Your task to perform on an android device: open a bookmark in the chrome app Image 0: 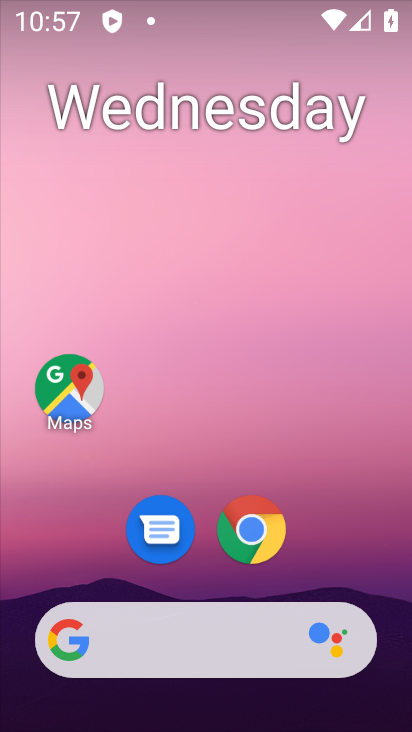
Step 0: drag from (373, 570) to (411, 296)
Your task to perform on an android device: open a bookmark in the chrome app Image 1: 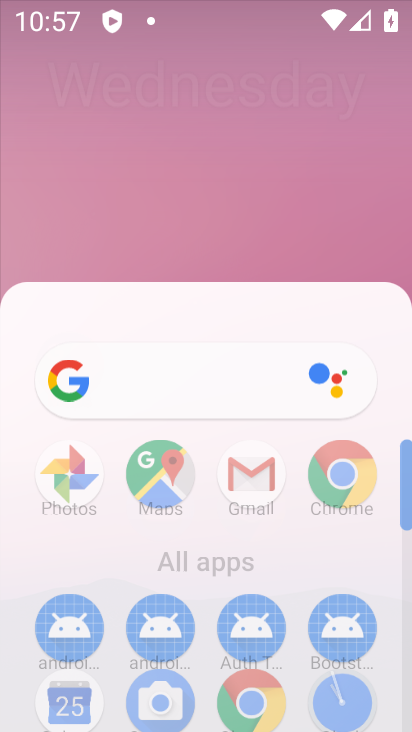
Step 1: drag from (386, 281) to (378, 74)
Your task to perform on an android device: open a bookmark in the chrome app Image 2: 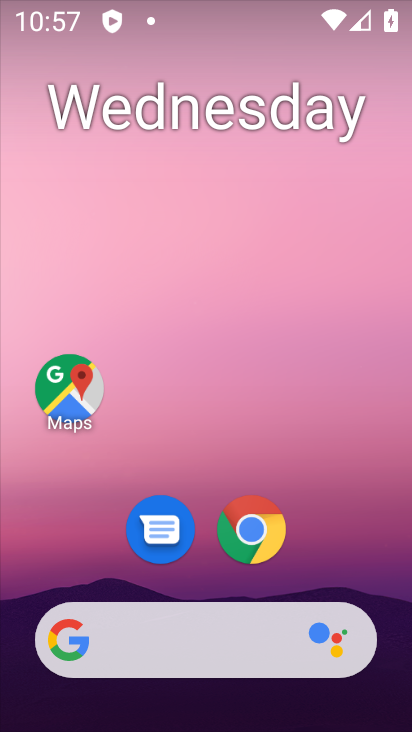
Step 2: drag from (342, 511) to (410, 3)
Your task to perform on an android device: open a bookmark in the chrome app Image 3: 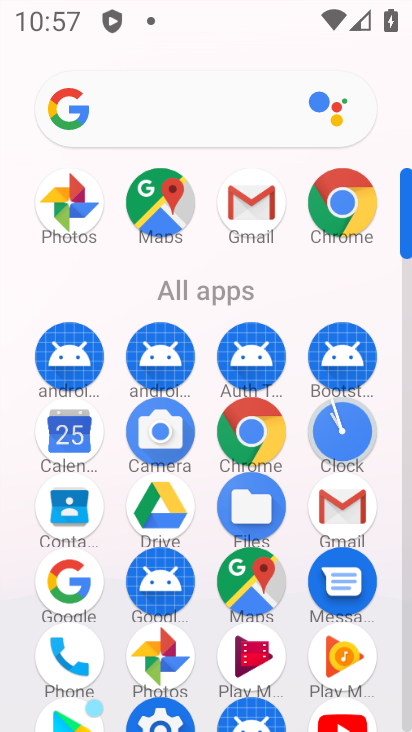
Step 3: click (345, 223)
Your task to perform on an android device: open a bookmark in the chrome app Image 4: 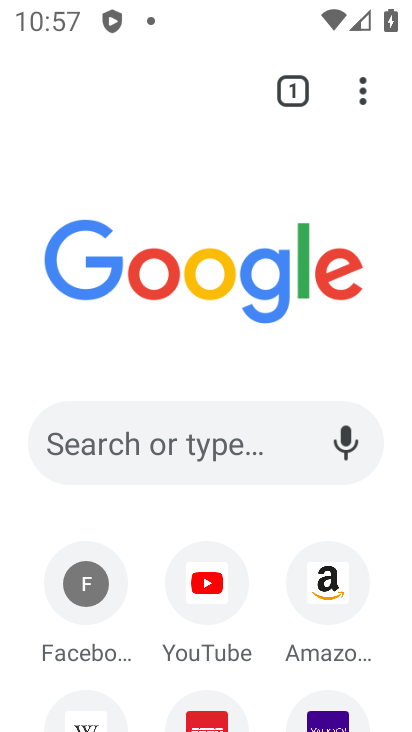
Step 4: click (361, 101)
Your task to perform on an android device: open a bookmark in the chrome app Image 5: 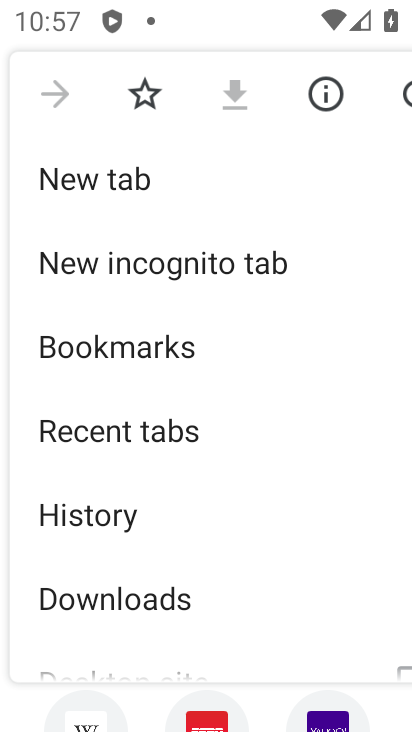
Step 5: drag from (294, 498) to (307, 408)
Your task to perform on an android device: open a bookmark in the chrome app Image 6: 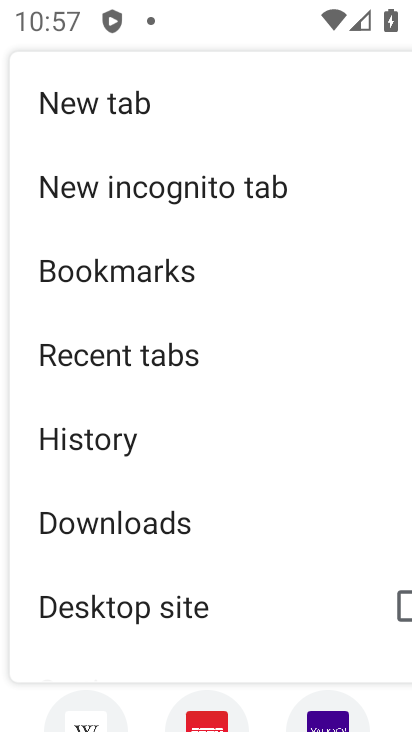
Step 6: drag from (296, 542) to (310, 449)
Your task to perform on an android device: open a bookmark in the chrome app Image 7: 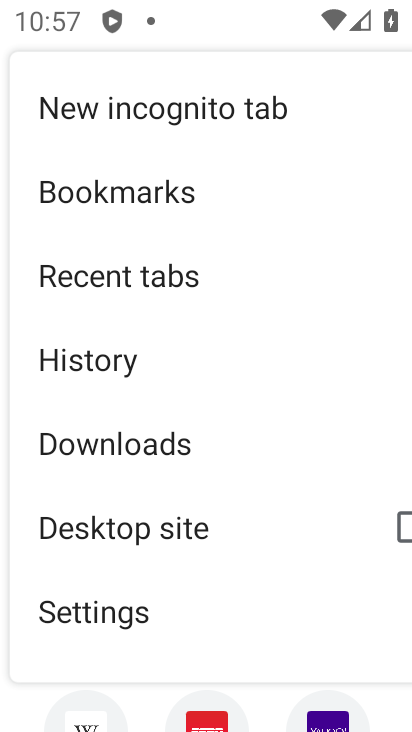
Step 7: drag from (296, 530) to (328, 382)
Your task to perform on an android device: open a bookmark in the chrome app Image 8: 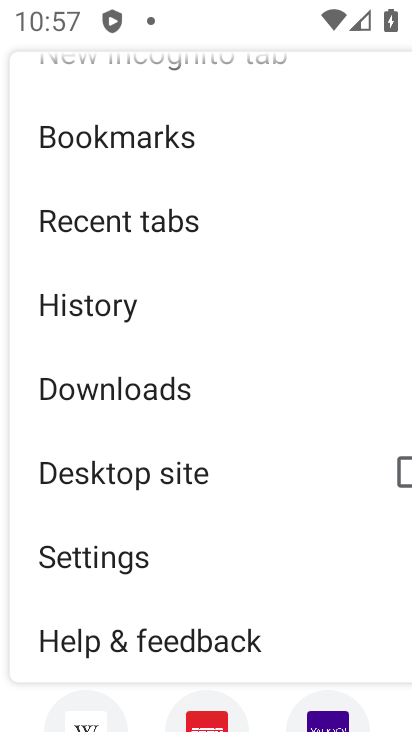
Step 8: drag from (312, 297) to (89, 7)
Your task to perform on an android device: open a bookmark in the chrome app Image 9: 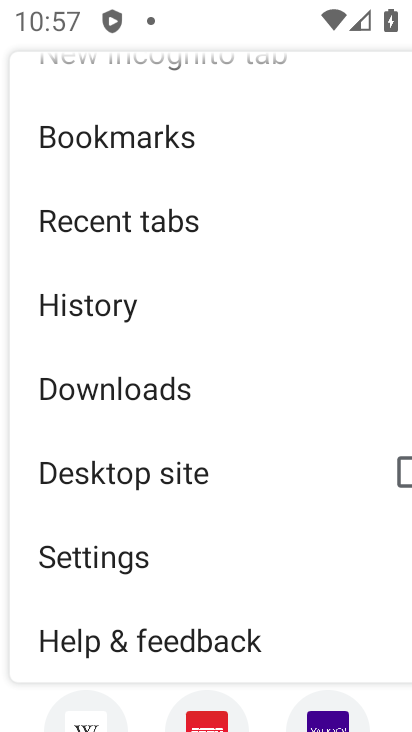
Step 9: click (144, 133)
Your task to perform on an android device: open a bookmark in the chrome app Image 10: 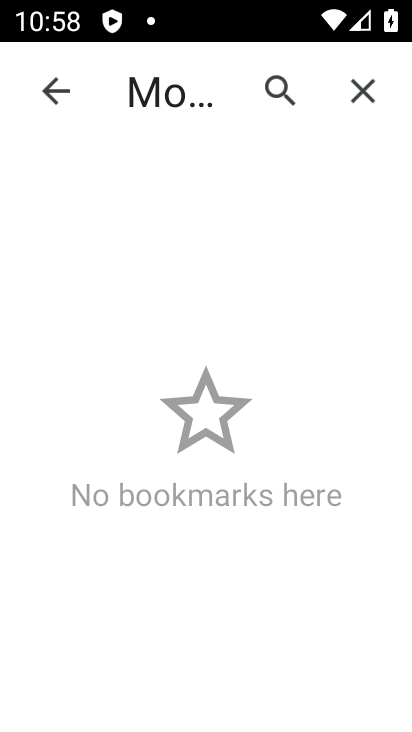
Step 10: task complete